Your task to perform on an android device: see creations saved in the google photos Image 0: 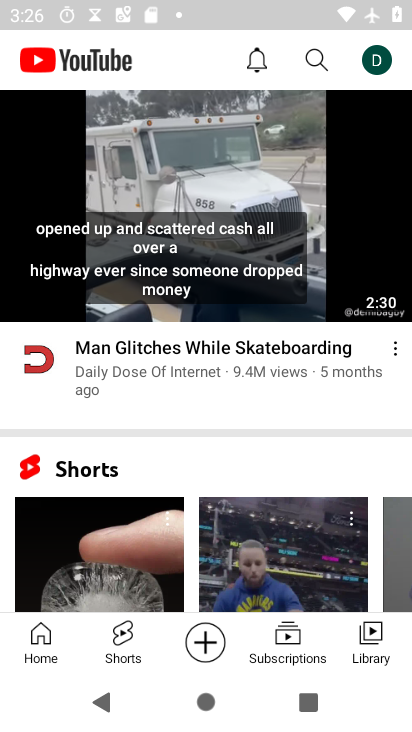
Step 0: press home button
Your task to perform on an android device: see creations saved in the google photos Image 1: 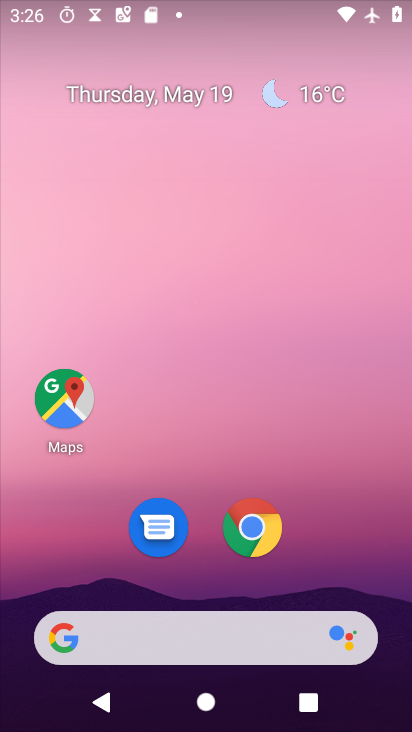
Step 1: drag from (333, 542) to (195, 9)
Your task to perform on an android device: see creations saved in the google photos Image 2: 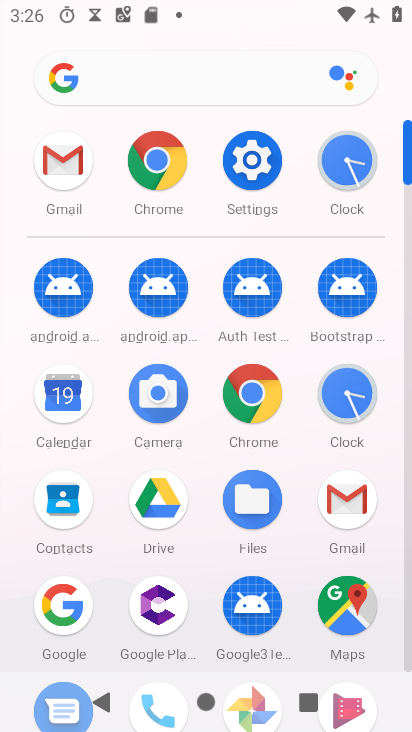
Step 2: drag from (190, 654) to (222, 190)
Your task to perform on an android device: see creations saved in the google photos Image 3: 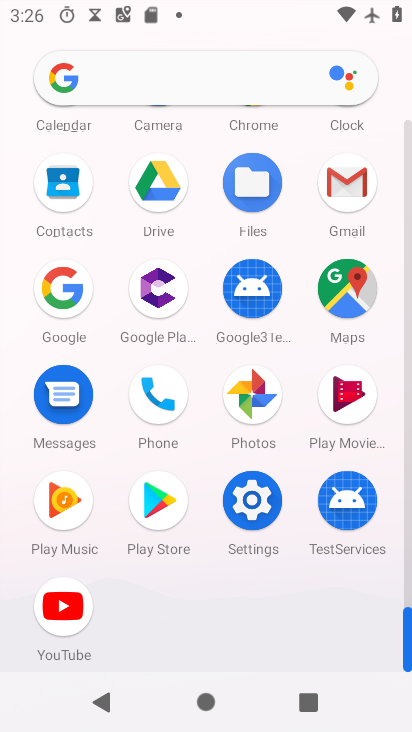
Step 3: click (248, 376)
Your task to perform on an android device: see creations saved in the google photos Image 4: 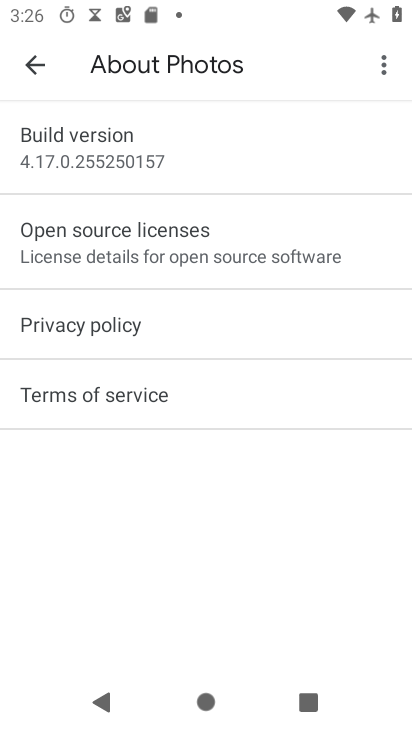
Step 4: click (25, 56)
Your task to perform on an android device: see creations saved in the google photos Image 5: 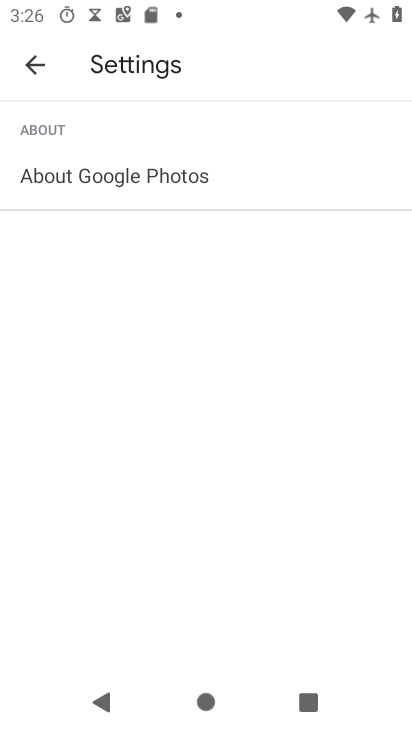
Step 5: click (43, 72)
Your task to perform on an android device: see creations saved in the google photos Image 6: 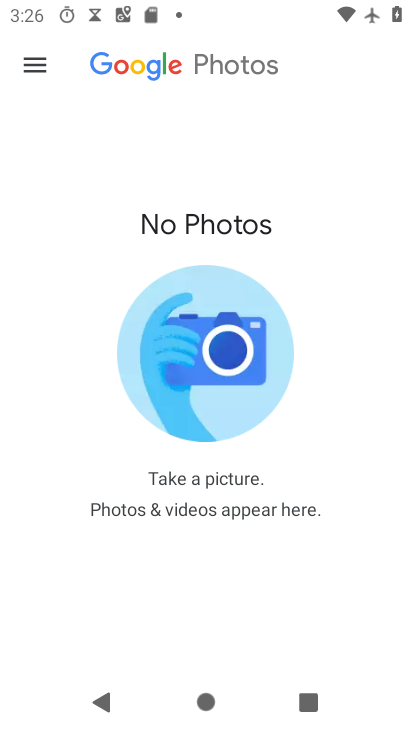
Step 6: task complete